Your task to perform on an android device: Open the map Image 0: 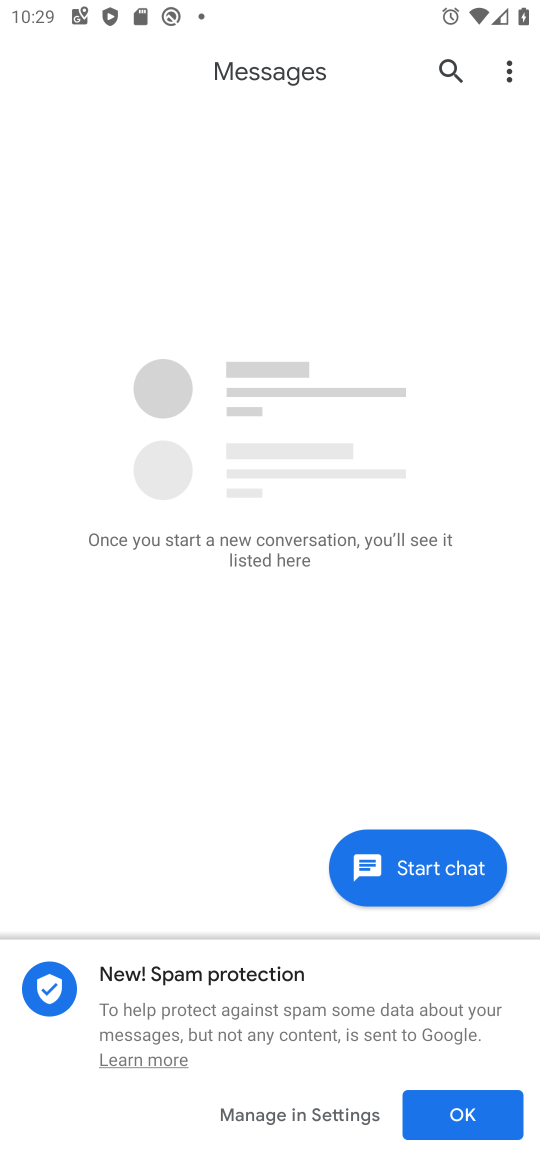
Step 0: press home button
Your task to perform on an android device: Open the map Image 1: 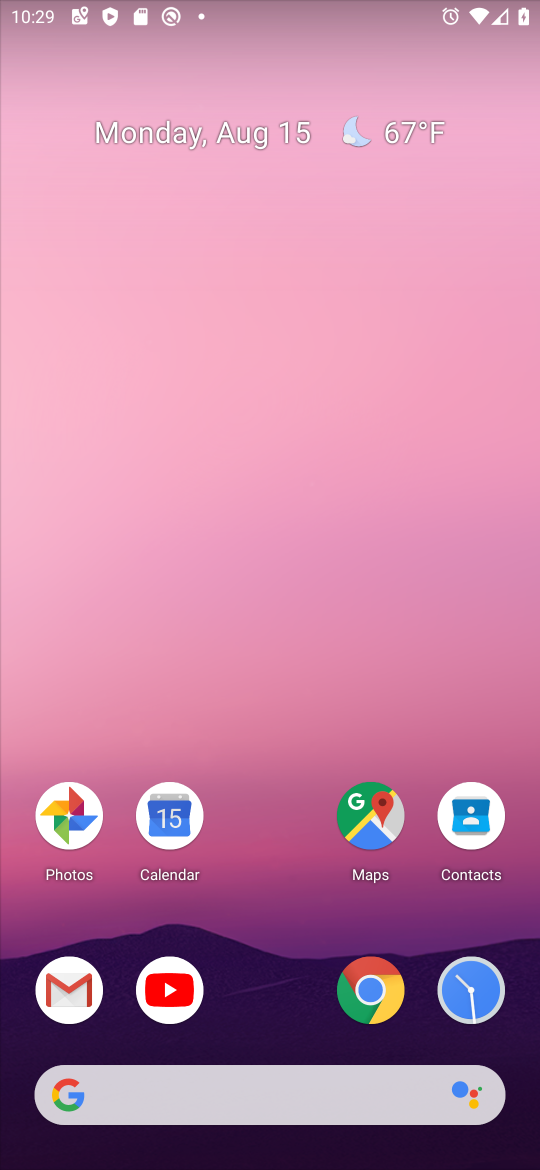
Step 1: click (369, 825)
Your task to perform on an android device: Open the map Image 2: 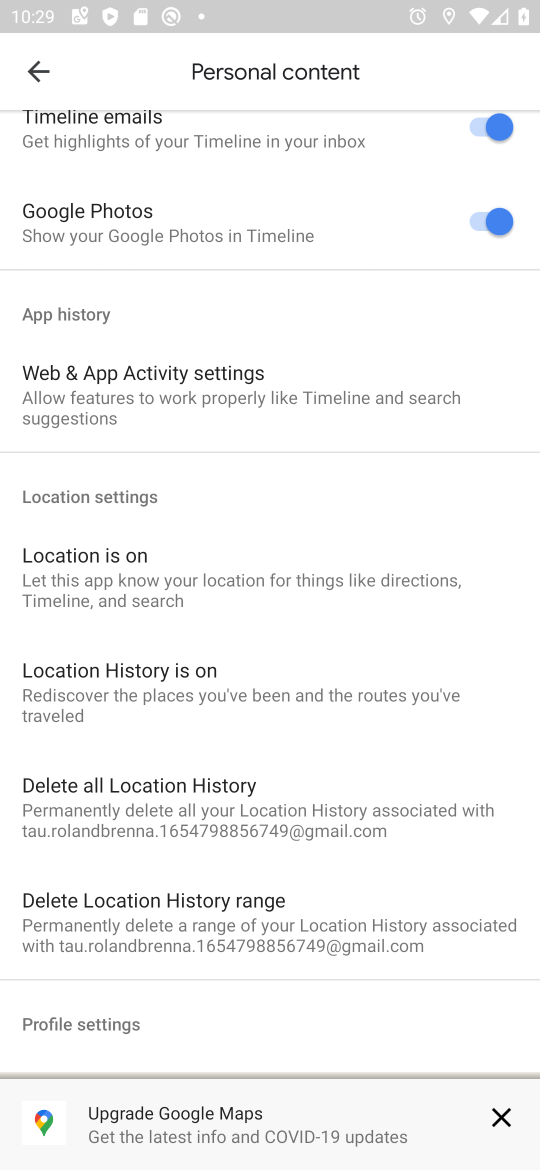
Step 2: click (35, 76)
Your task to perform on an android device: Open the map Image 3: 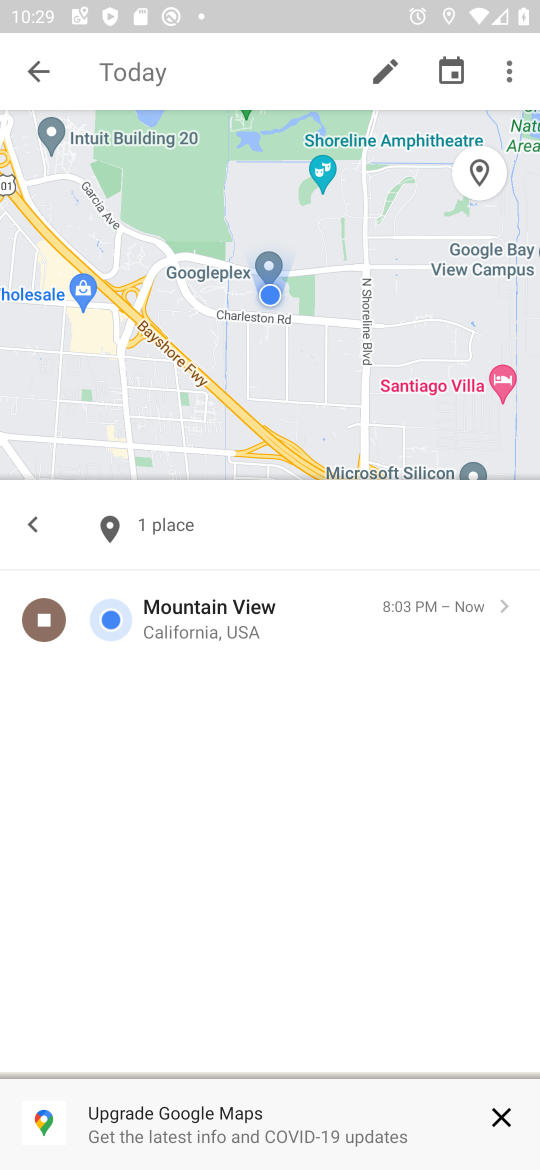
Step 3: click (35, 76)
Your task to perform on an android device: Open the map Image 4: 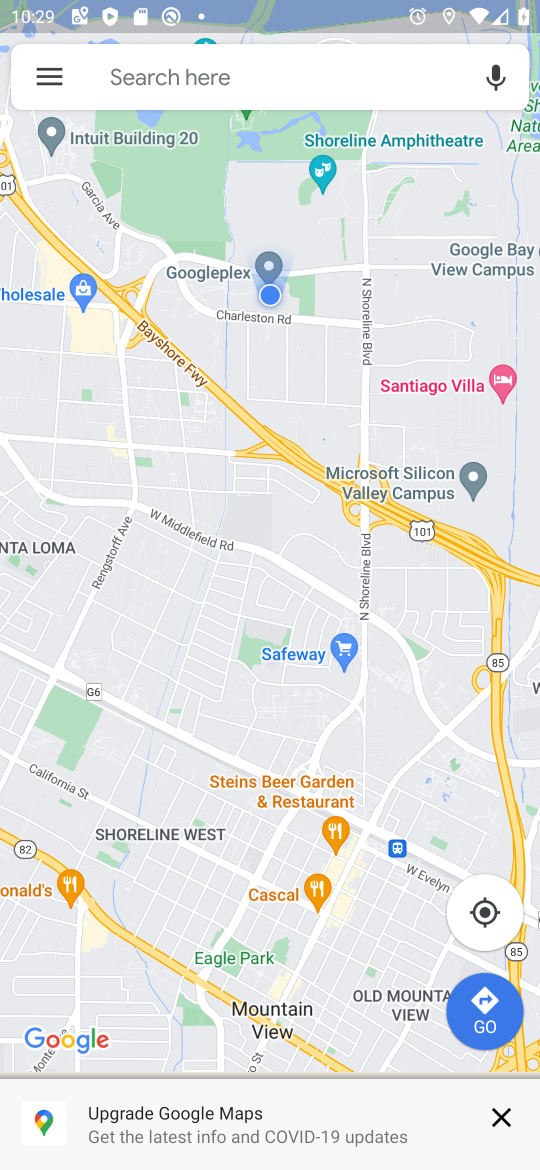
Step 4: task complete